Your task to perform on an android device: change the clock display to analog Image 0: 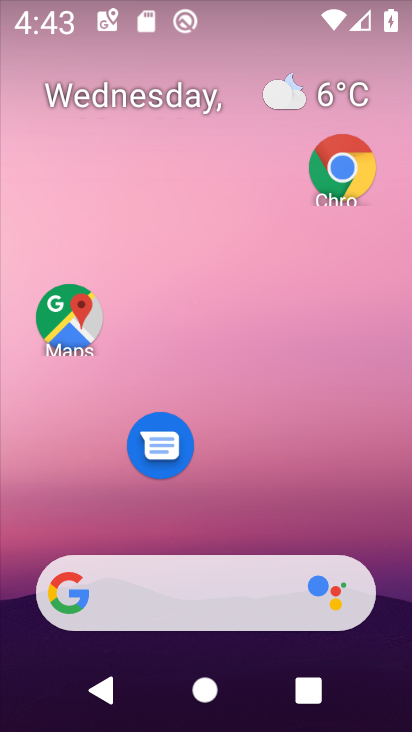
Step 0: drag from (253, 531) to (178, 3)
Your task to perform on an android device: change the clock display to analog Image 1: 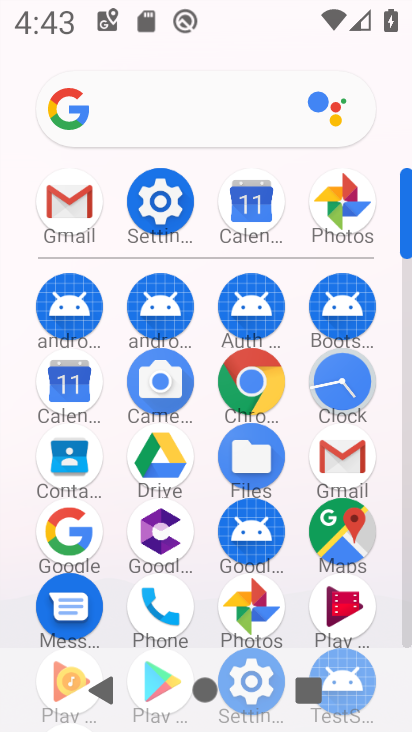
Step 1: click (344, 392)
Your task to perform on an android device: change the clock display to analog Image 2: 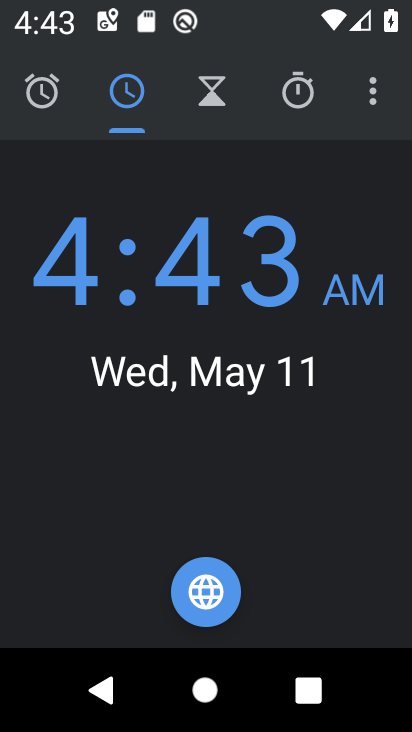
Step 2: click (366, 103)
Your task to perform on an android device: change the clock display to analog Image 3: 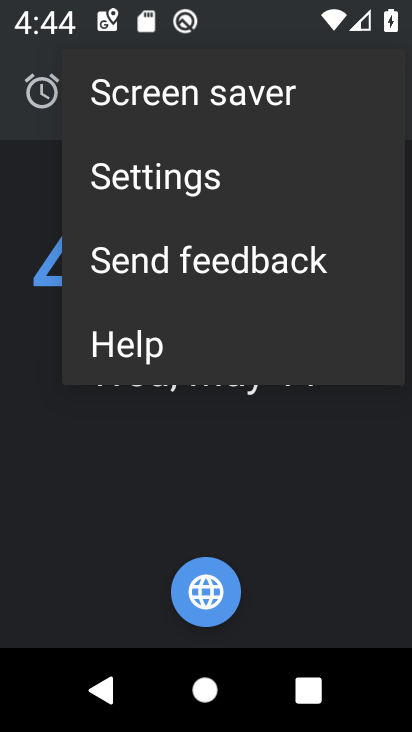
Step 3: click (177, 192)
Your task to perform on an android device: change the clock display to analog Image 4: 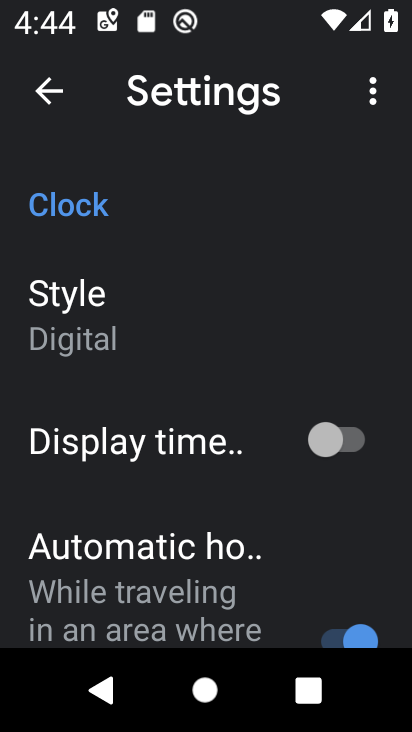
Step 4: click (98, 333)
Your task to perform on an android device: change the clock display to analog Image 5: 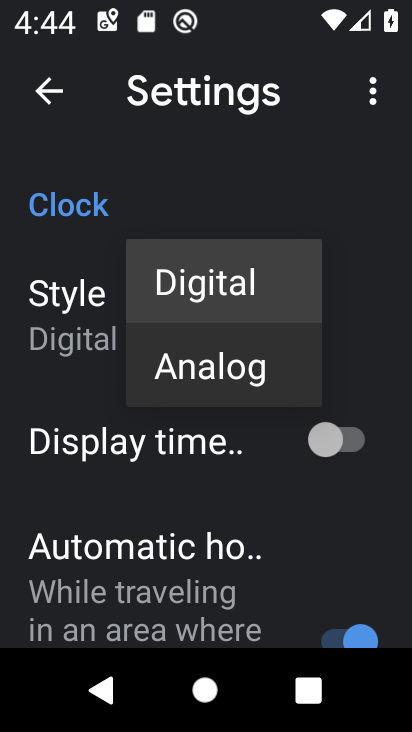
Step 5: click (289, 370)
Your task to perform on an android device: change the clock display to analog Image 6: 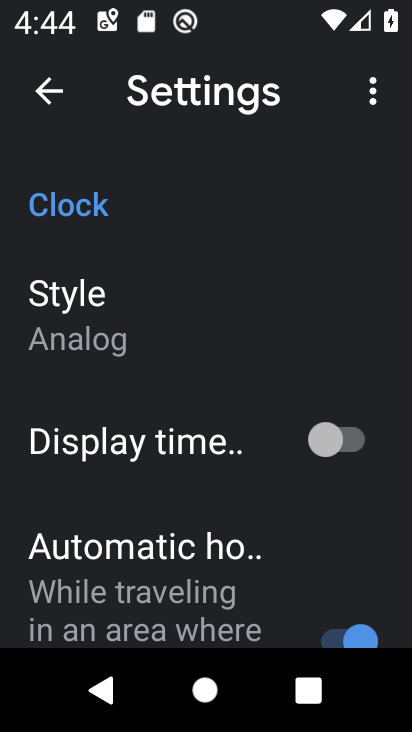
Step 6: task complete